Your task to perform on an android device: turn on location history Image 0: 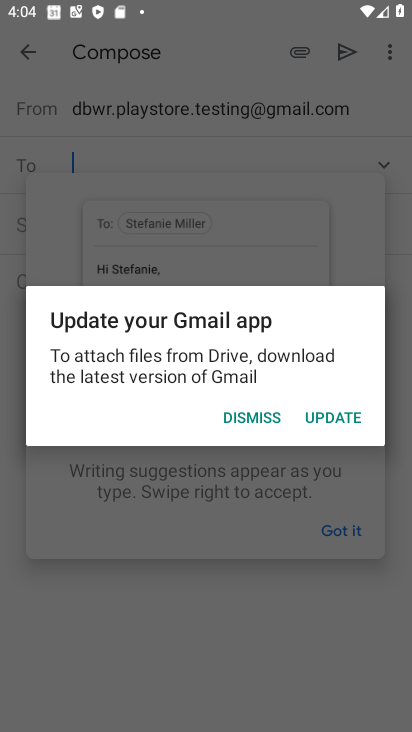
Step 0: press home button
Your task to perform on an android device: turn on location history Image 1: 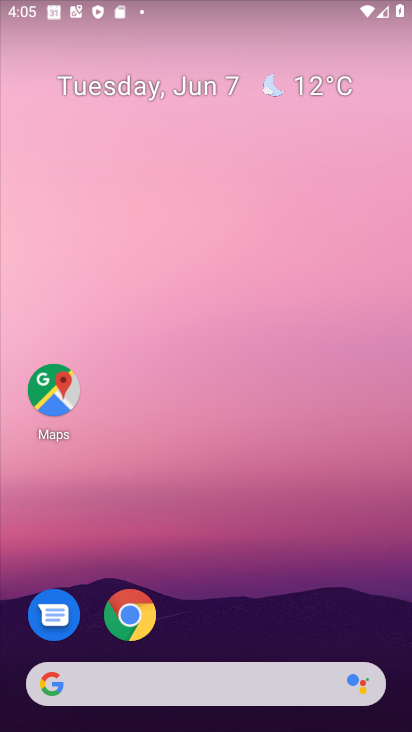
Step 1: drag from (222, 498) to (372, 9)
Your task to perform on an android device: turn on location history Image 2: 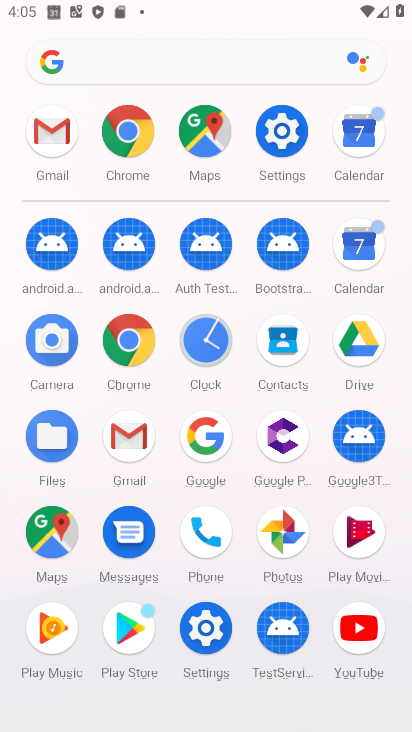
Step 2: click (205, 612)
Your task to perform on an android device: turn on location history Image 3: 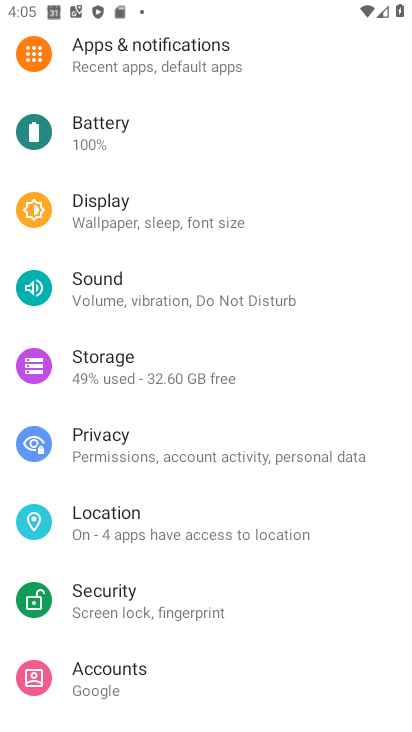
Step 3: drag from (245, 528) to (249, 488)
Your task to perform on an android device: turn on location history Image 4: 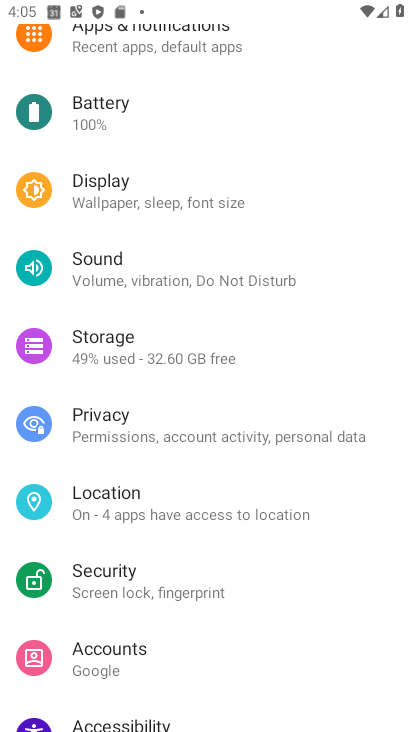
Step 4: click (157, 508)
Your task to perform on an android device: turn on location history Image 5: 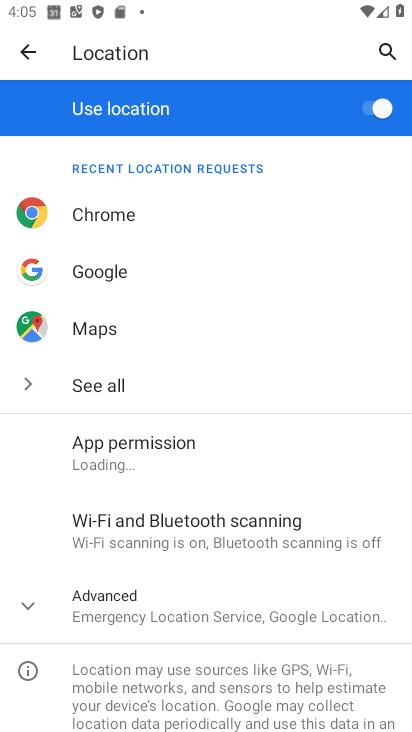
Step 5: drag from (196, 539) to (279, 215)
Your task to perform on an android device: turn on location history Image 6: 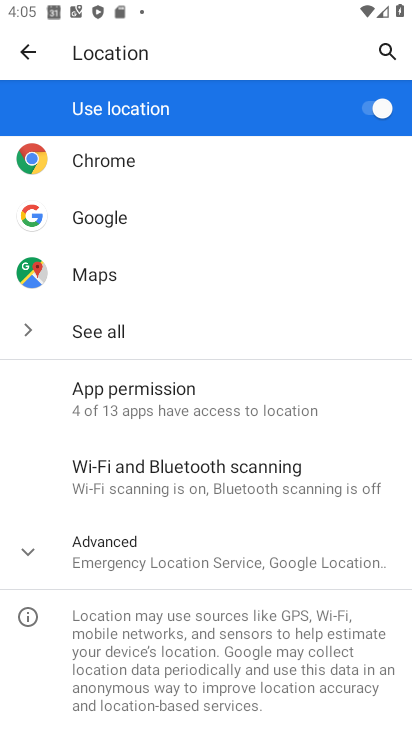
Step 6: click (207, 553)
Your task to perform on an android device: turn on location history Image 7: 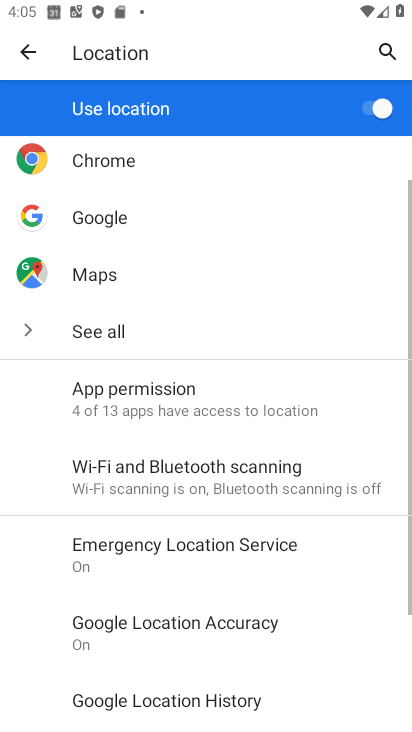
Step 7: drag from (193, 598) to (236, 305)
Your task to perform on an android device: turn on location history Image 8: 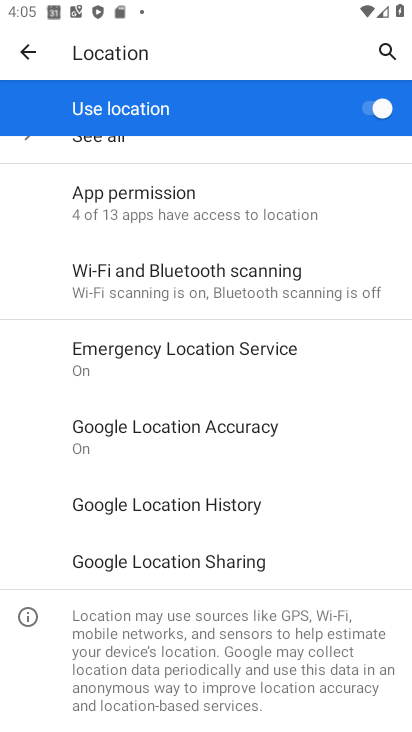
Step 8: click (197, 519)
Your task to perform on an android device: turn on location history Image 9: 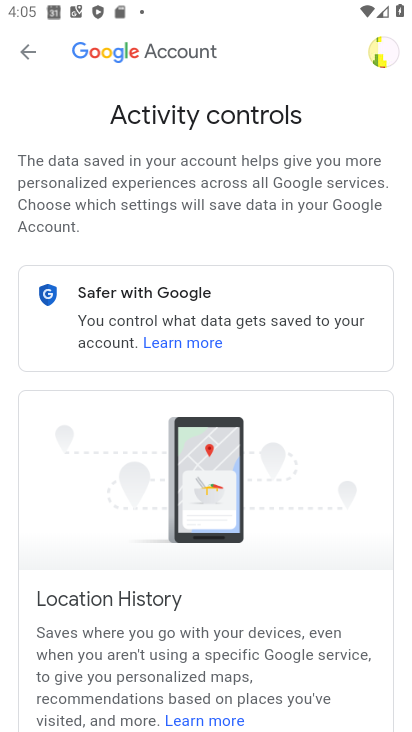
Step 9: task complete